Your task to perform on an android device: open sync settings in chrome Image 0: 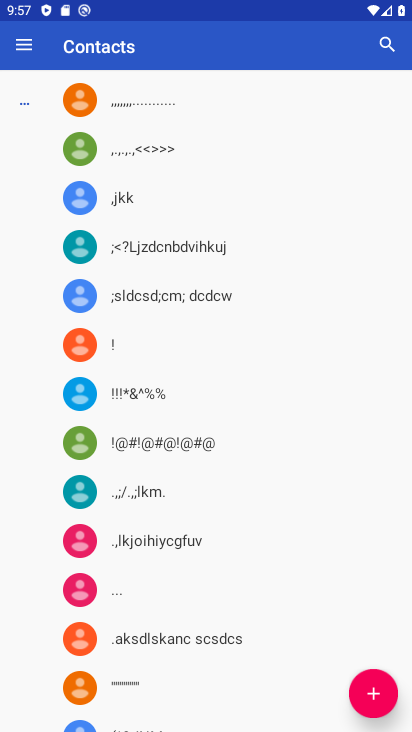
Step 0: press home button
Your task to perform on an android device: open sync settings in chrome Image 1: 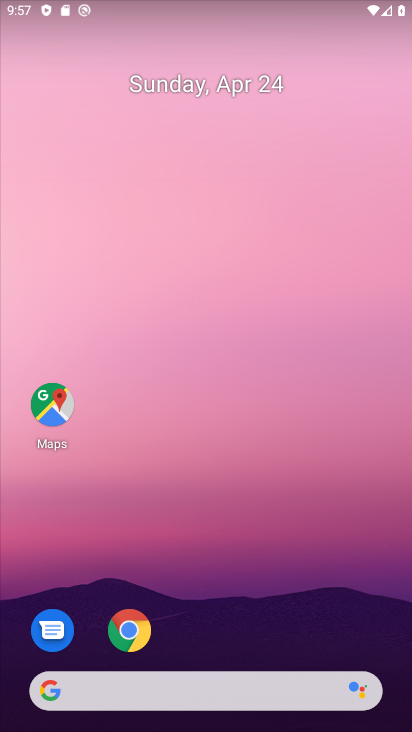
Step 1: click (142, 628)
Your task to perform on an android device: open sync settings in chrome Image 2: 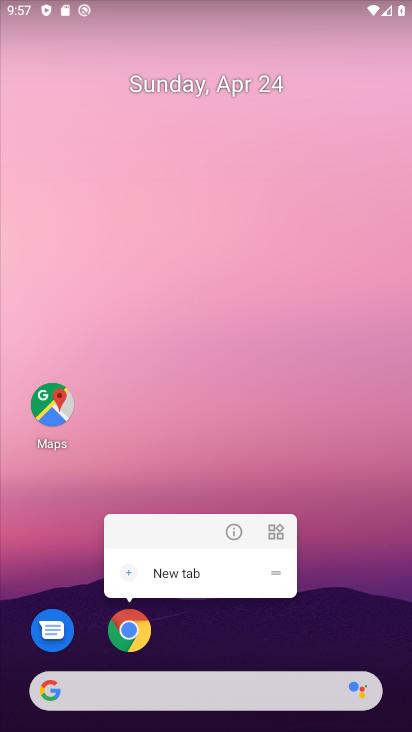
Step 2: click (129, 634)
Your task to perform on an android device: open sync settings in chrome Image 3: 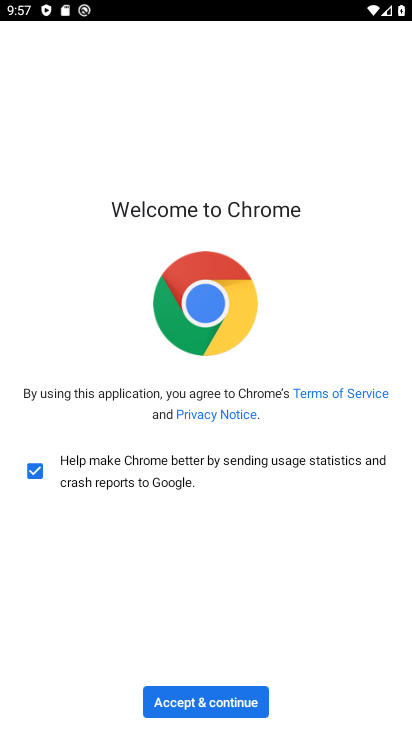
Step 3: click (192, 702)
Your task to perform on an android device: open sync settings in chrome Image 4: 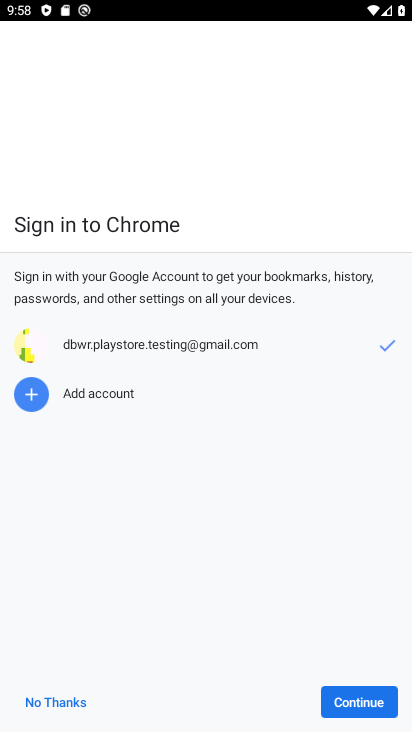
Step 4: click (356, 696)
Your task to perform on an android device: open sync settings in chrome Image 5: 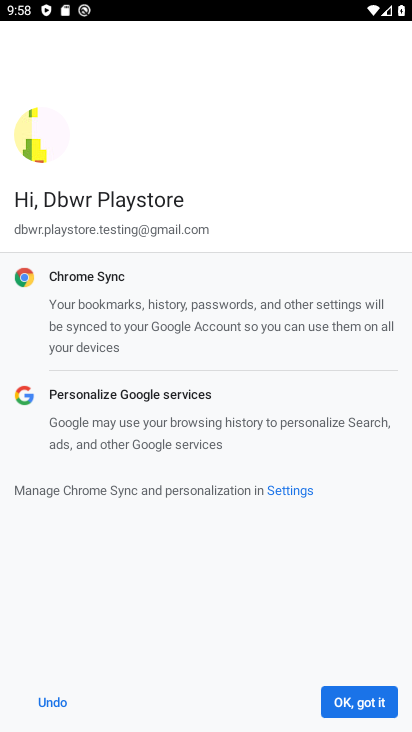
Step 5: click (355, 699)
Your task to perform on an android device: open sync settings in chrome Image 6: 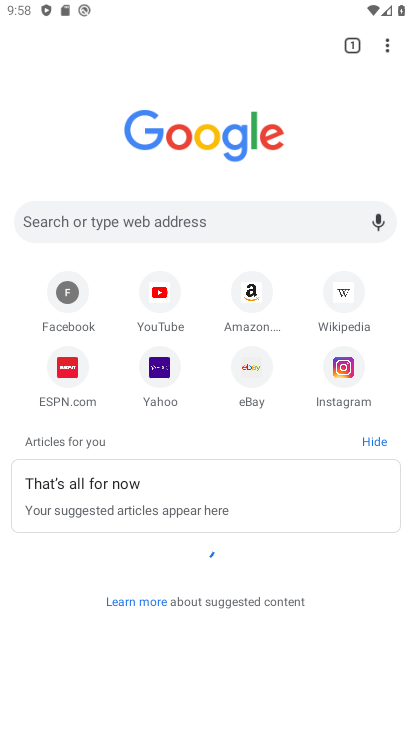
Step 6: drag from (386, 44) to (228, 378)
Your task to perform on an android device: open sync settings in chrome Image 7: 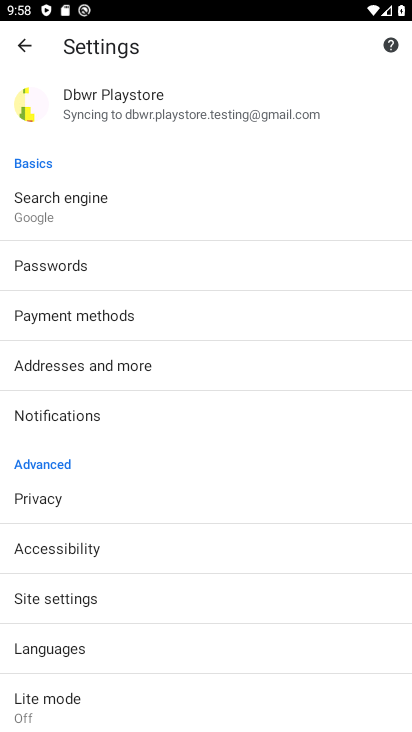
Step 7: click (152, 113)
Your task to perform on an android device: open sync settings in chrome Image 8: 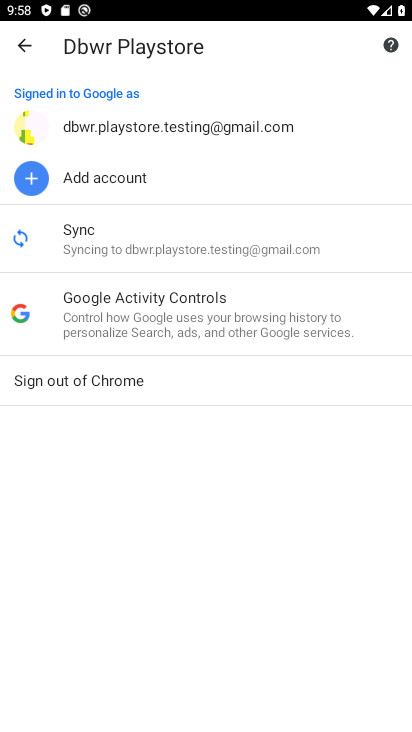
Step 8: click (181, 248)
Your task to perform on an android device: open sync settings in chrome Image 9: 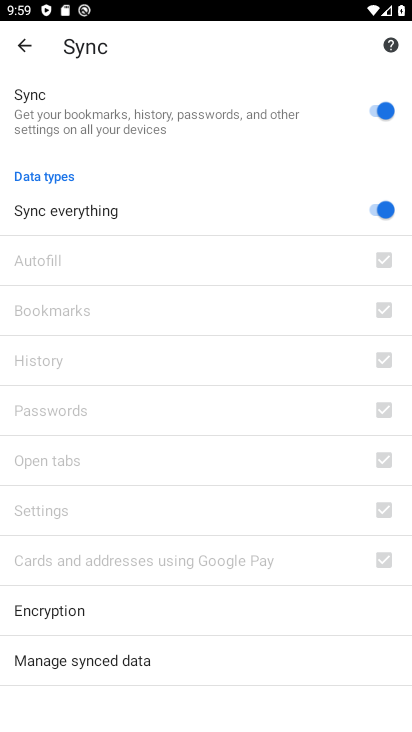
Step 9: task complete